Your task to perform on an android device: toggle location history Image 0: 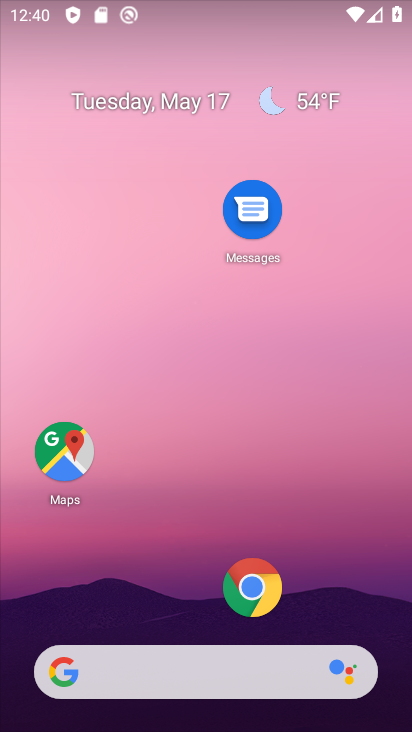
Step 0: drag from (179, 592) to (248, 37)
Your task to perform on an android device: toggle location history Image 1: 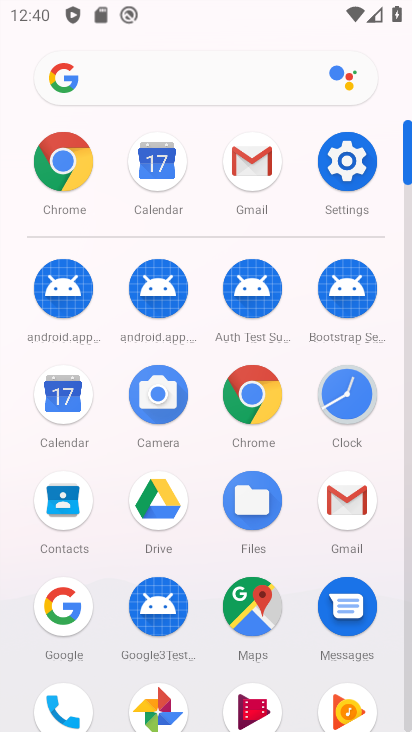
Step 1: click (357, 193)
Your task to perform on an android device: toggle location history Image 2: 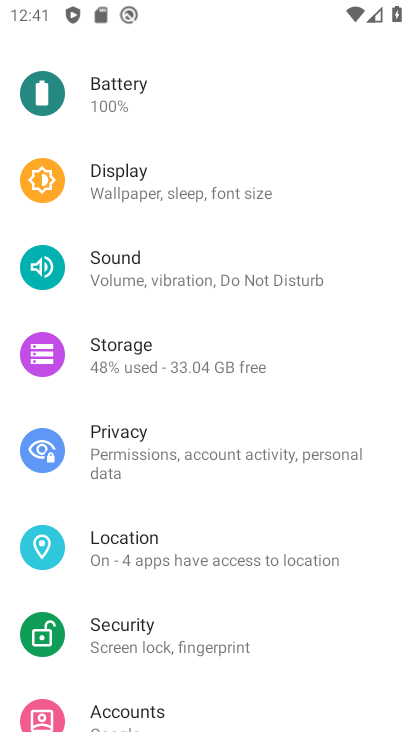
Step 2: drag from (170, 622) to (233, 274)
Your task to perform on an android device: toggle location history Image 3: 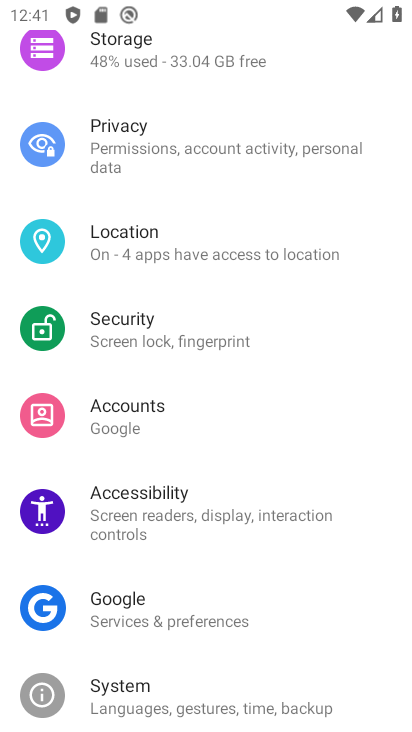
Step 3: click (173, 260)
Your task to perform on an android device: toggle location history Image 4: 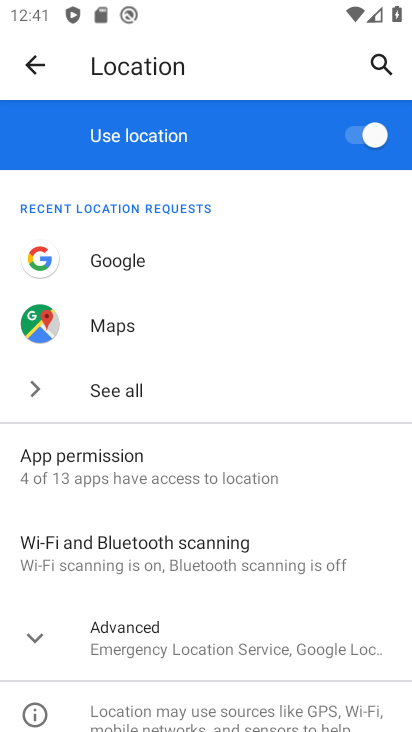
Step 4: click (158, 630)
Your task to perform on an android device: toggle location history Image 5: 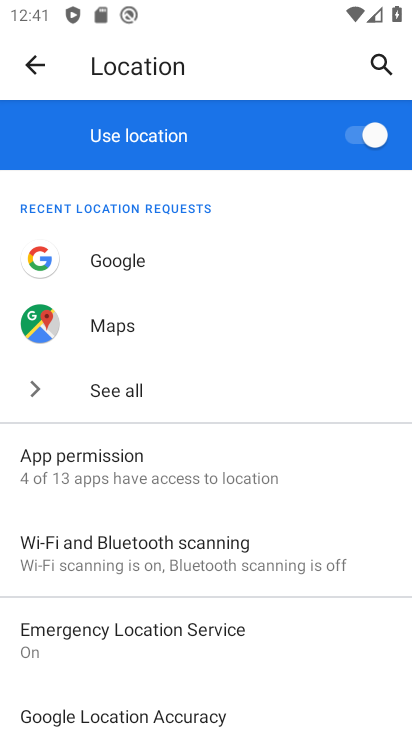
Step 5: drag from (163, 631) to (221, 413)
Your task to perform on an android device: toggle location history Image 6: 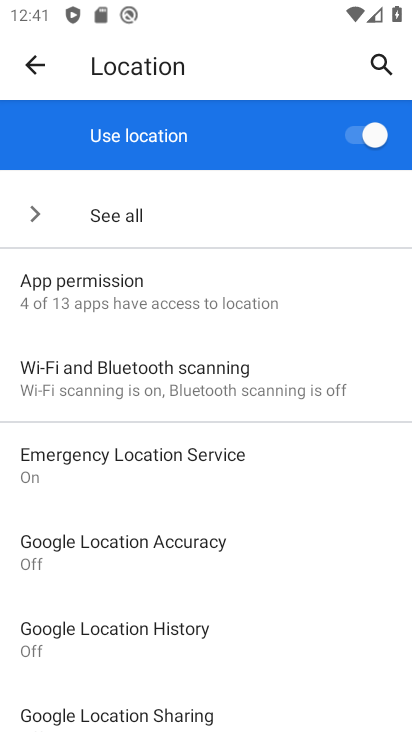
Step 6: click (151, 631)
Your task to perform on an android device: toggle location history Image 7: 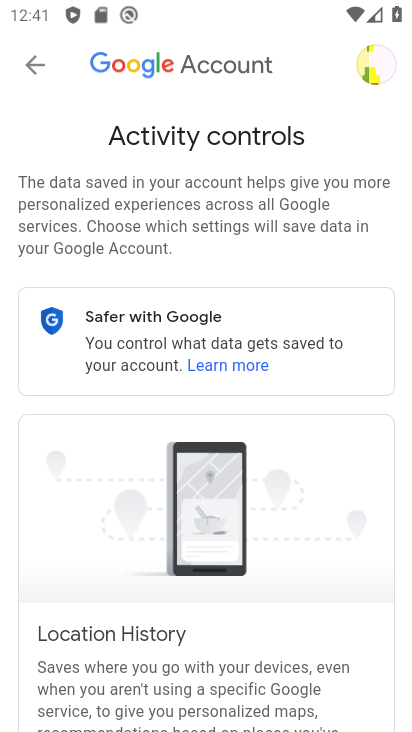
Step 7: drag from (201, 523) to (300, 174)
Your task to perform on an android device: toggle location history Image 8: 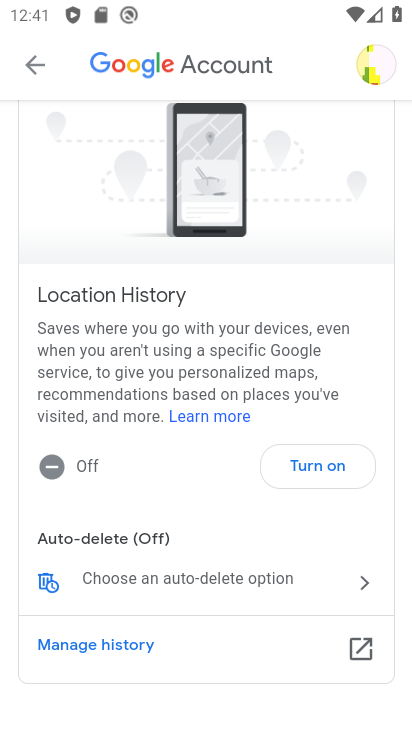
Step 8: click (313, 463)
Your task to perform on an android device: toggle location history Image 9: 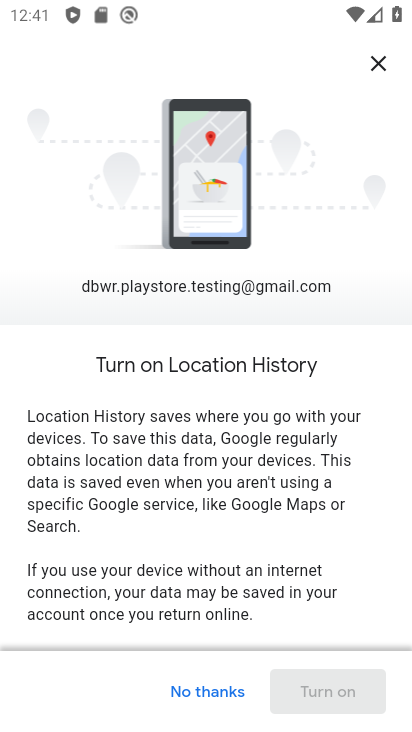
Step 9: drag from (244, 581) to (300, 173)
Your task to perform on an android device: toggle location history Image 10: 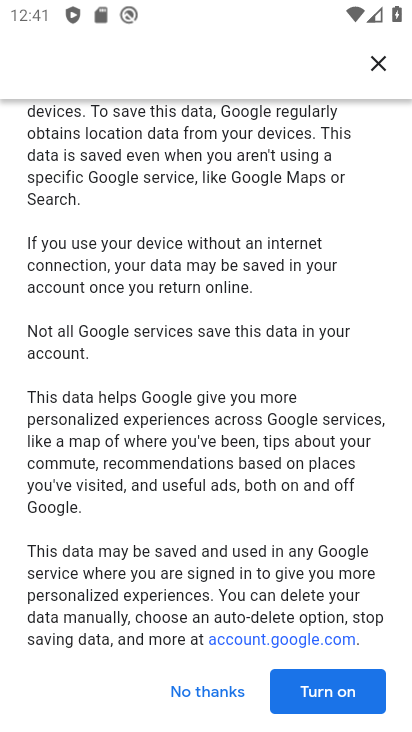
Step 10: drag from (251, 551) to (294, 323)
Your task to perform on an android device: toggle location history Image 11: 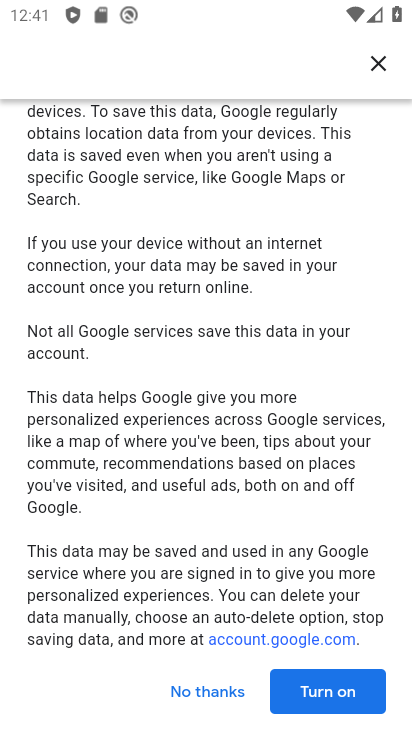
Step 11: click (324, 696)
Your task to perform on an android device: toggle location history Image 12: 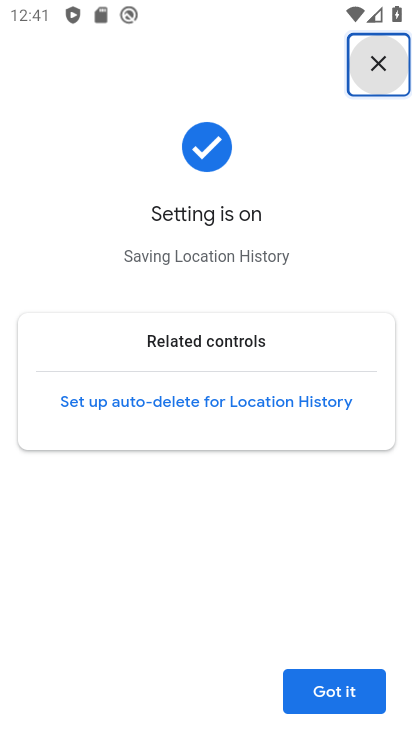
Step 12: click (320, 687)
Your task to perform on an android device: toggle location history Image 13: 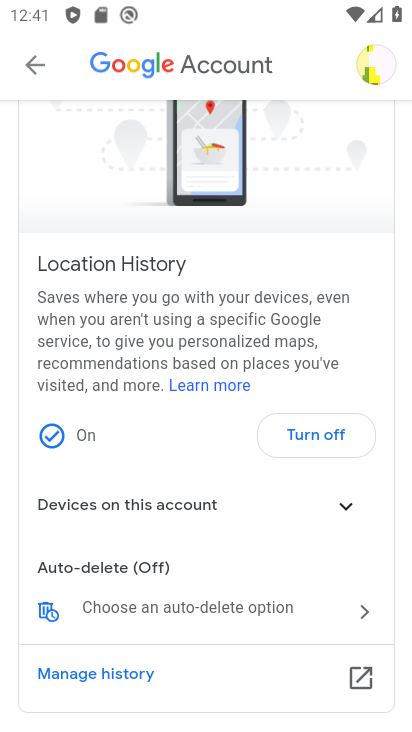
Step 13: task complete